Your task to perform on an android device: Go to internet settings Image 0: 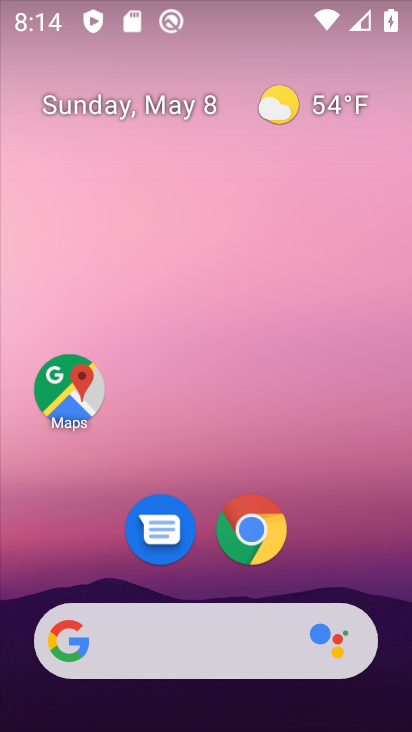
Step 0: drag from (380, 548) to (351, 103)
Your task to perform on an android device: Go to internet settings Image 1: 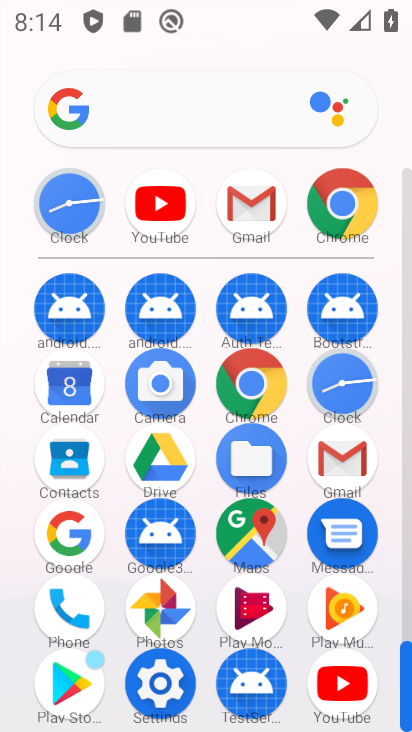
Step 1: click (157, 685)
Your task to perform on an android device: Go to internet settings Image 2: 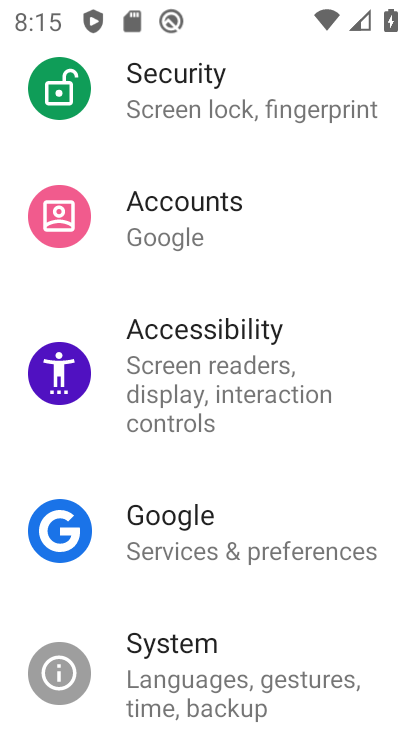
Step 2: drag from (300, 595) to (298, 200)
Your task to perform on an android device: Go to internet settings Image 3: 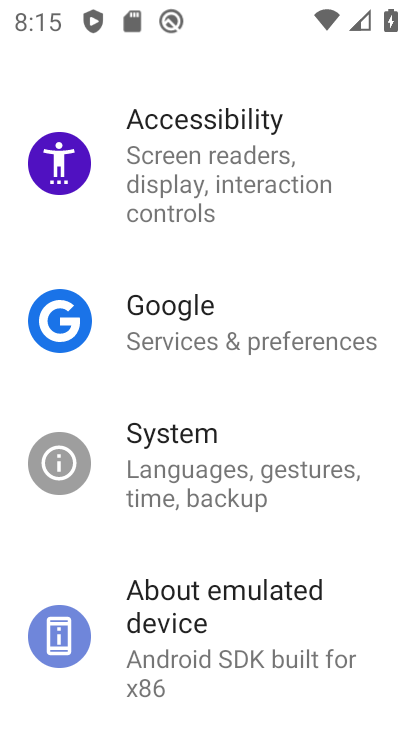
Step 3: drag from (293, 246) to (271, 703)
Your task to perform on an android device: Go to internet settings Image 4: 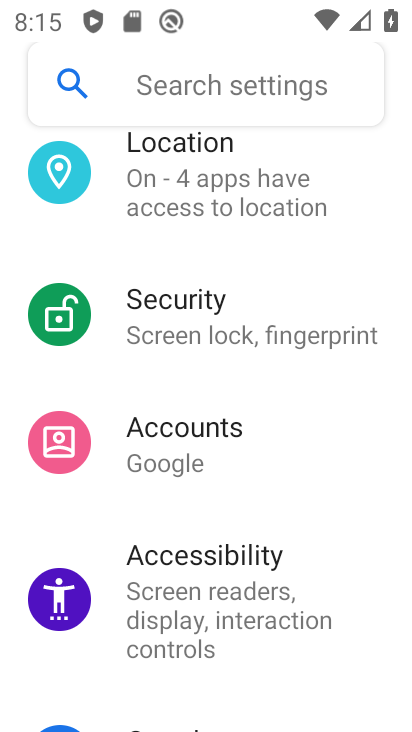
Step 4: drag from (318, 178) to (280, 715)
Your task to perform on an android device: Go to internet settings Image 5: 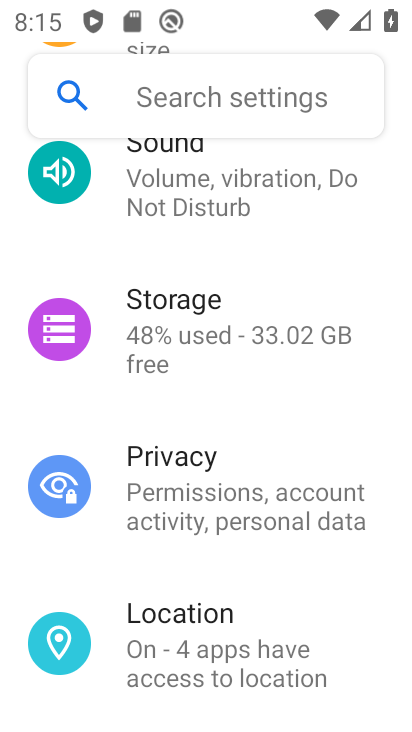
Step 5: drag from (303, 206) to (320, 606)
Your task to perform on an android device: Go to internet settings Image 6: 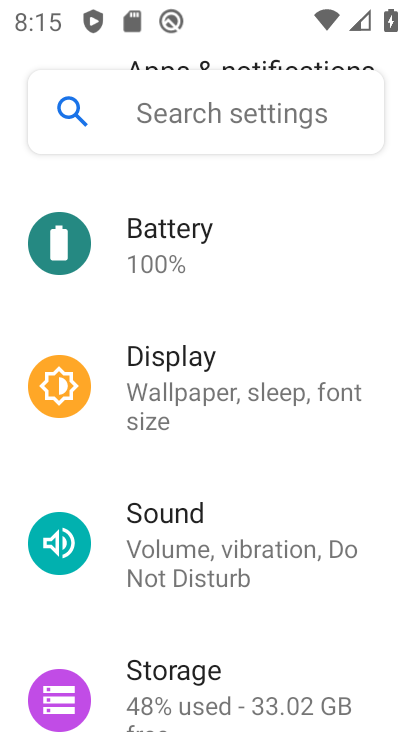
Step 6: drag from (281, 258) to (274, 627)
Your task to perform on an android device: Go to internet settings Image 7: 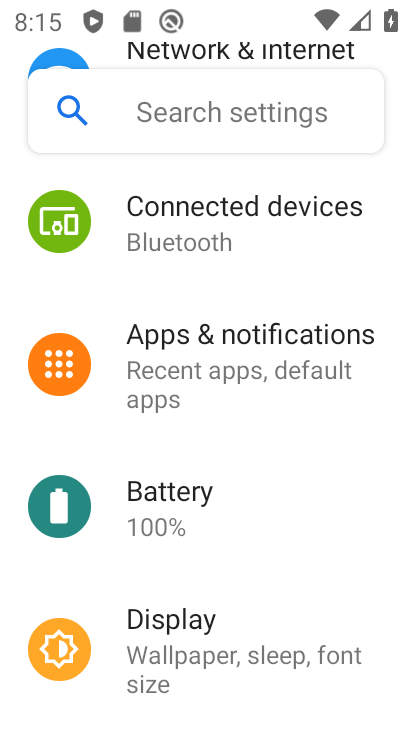
Step 7: drag from (324, 230) to (276, 519)
Your task to perform on an android device: Go to internet settings Image 8: 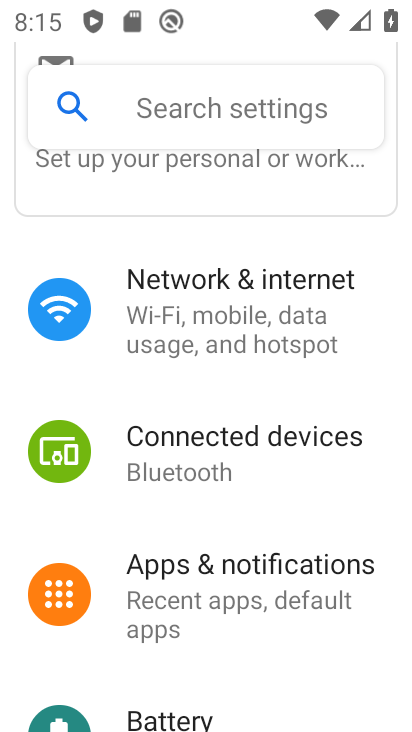
Step 8: click (316, 296)
Your task to perform on an android device: Go to internet settings Image 9: 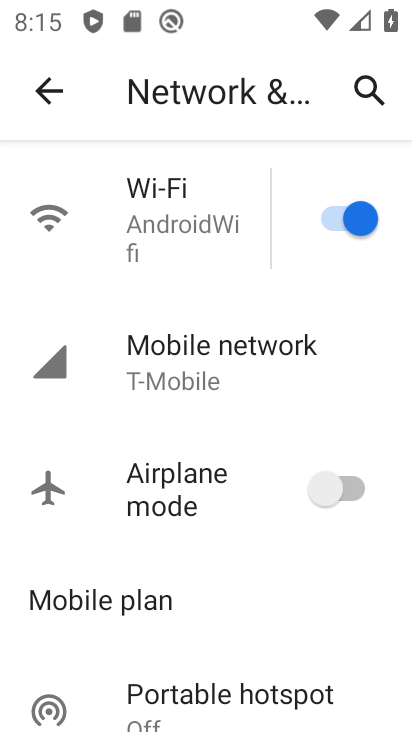
Step 9: click (205, 364)
Your task to perform on an android device: Go to internet settings Image 10: 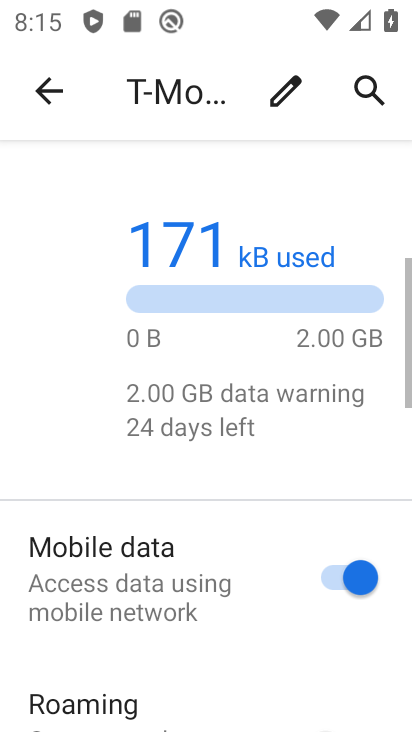
Step 10: task complete